Your task to perform on an android device: turn off sleep mode Image 0: 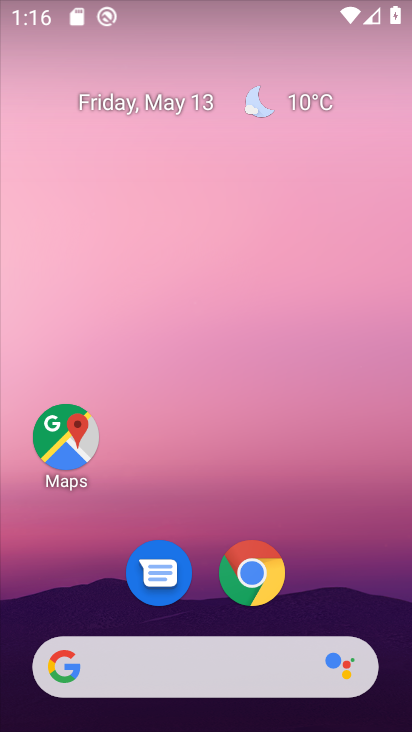
Step 0: drag from (298, 591) to (244, 40)
Your task to perform on an android device: turn off sleep mode Image 1: 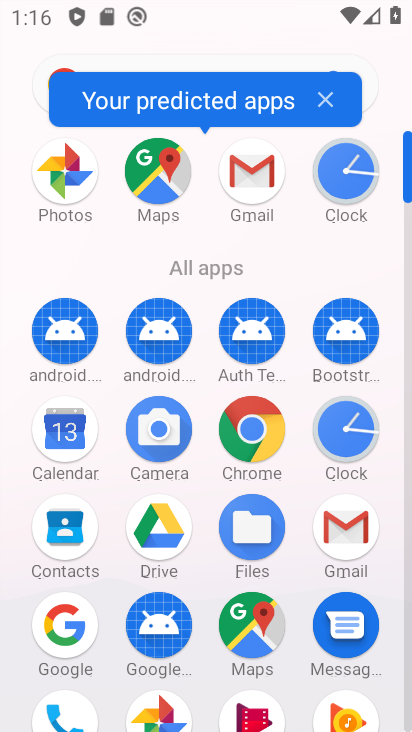
Step 1: task complete